Your task to perform on an android device: Open the Play Movies app and select the watchlist tab. Image 0: 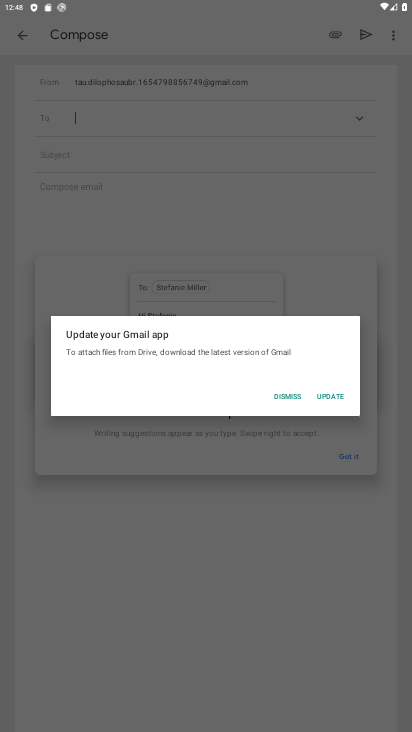
Step 0: press home button
Your task to perform on an android device: Open the Play Movies app and select the watchlist tab. Image 1: 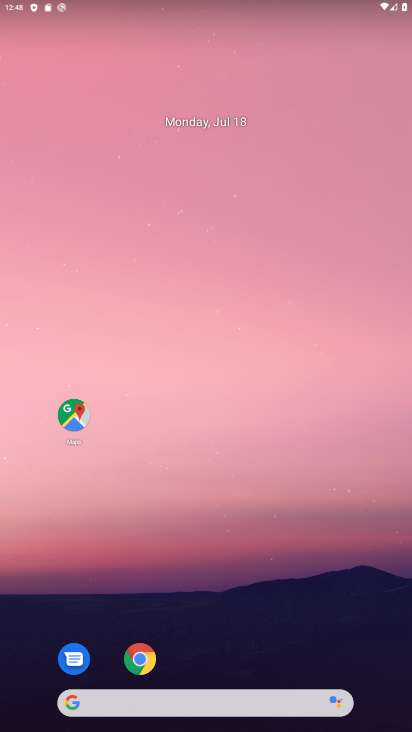
Step 1: drag from (301, 663) to (254, 133)
Your task to perform on an android device: Open the Play Movies app and select the watchlist tab. Image 2: 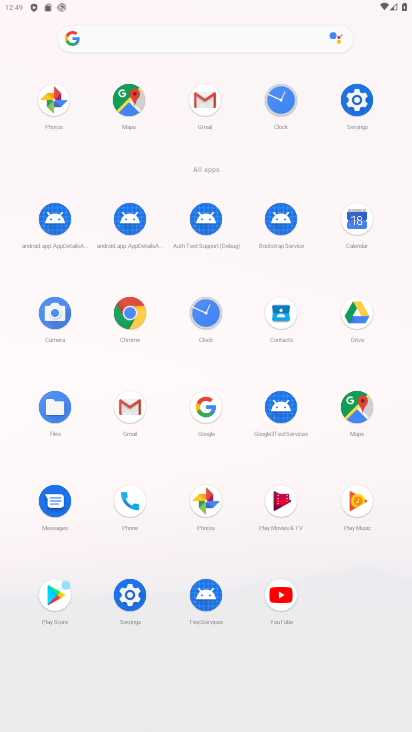
Step 2: click (284, 501)
Your task to perform on an android device: Open the Play Movies app and select the watchlist tab. Image 3: 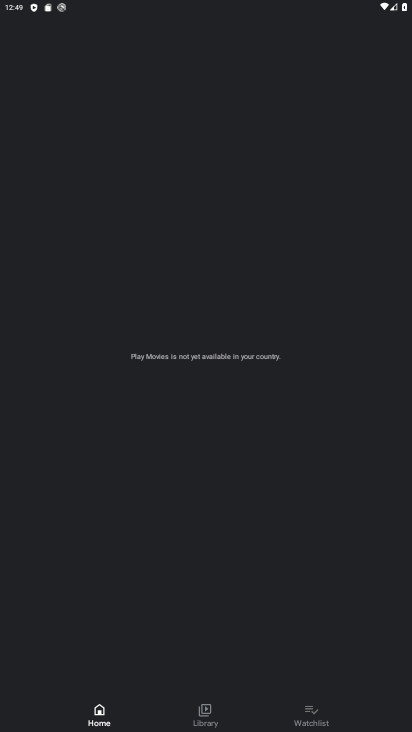
Step 3: click (325, 729)
Your task to perform on an android device: Open the Play Movies app and select the watchlist tab. Image 4: 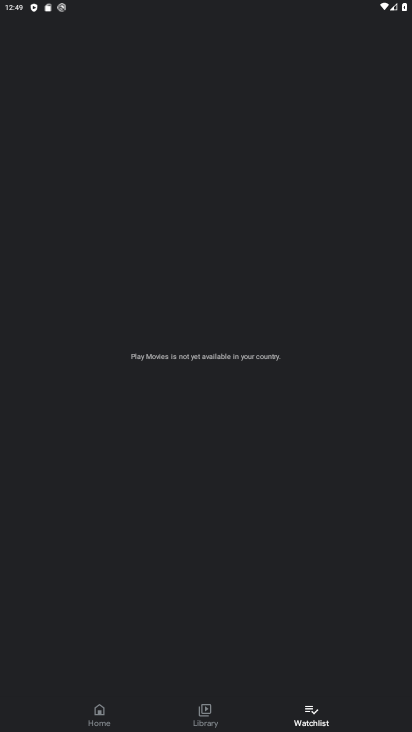
Step 4: task complete